Your task to perform on an android device: Do I have any events tomorrow? Image 0: 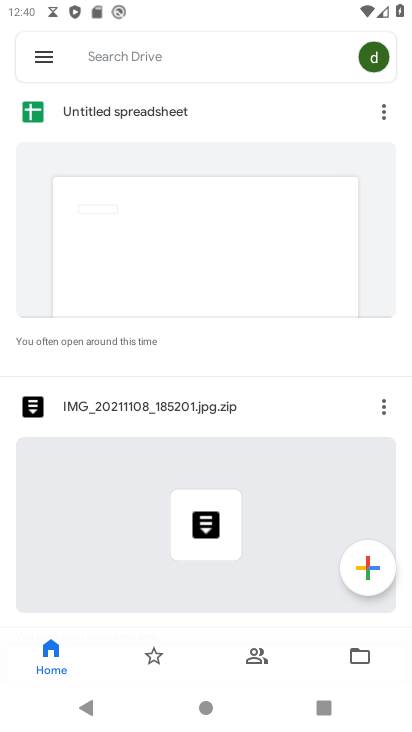
Step 0: press home button
Your task to perform on an android device: Do I have any events tomorrow? Image 1: 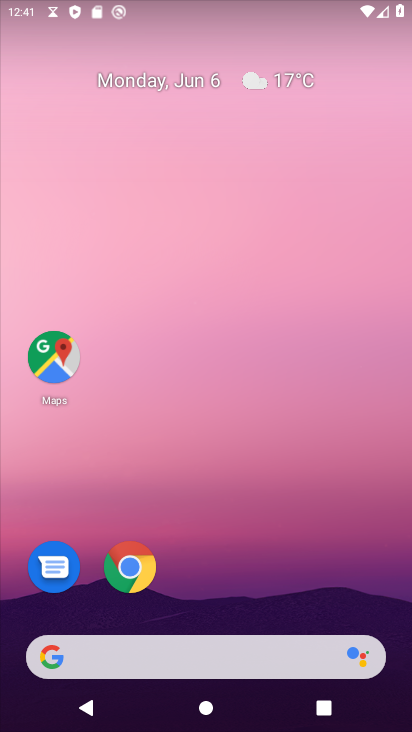
Step 1: drag from (231, 688) to (230, 4)
Your task to perform on an android device: Do I have any events tomorrow? Image 2: 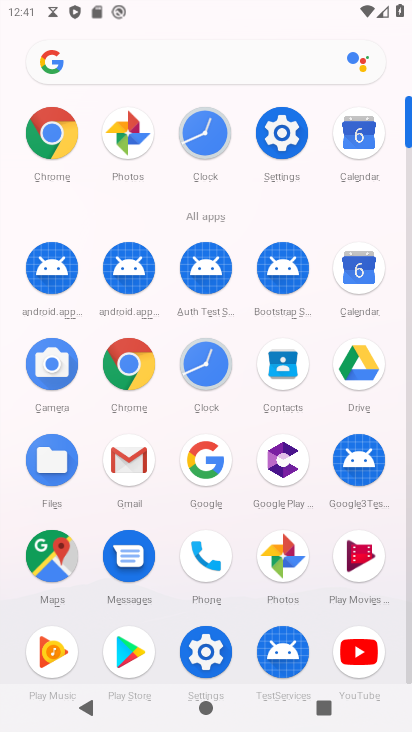
Step 2: click (353, 135)
Your task to perform on an android device: Do I have any events tomorrow? Image 3: 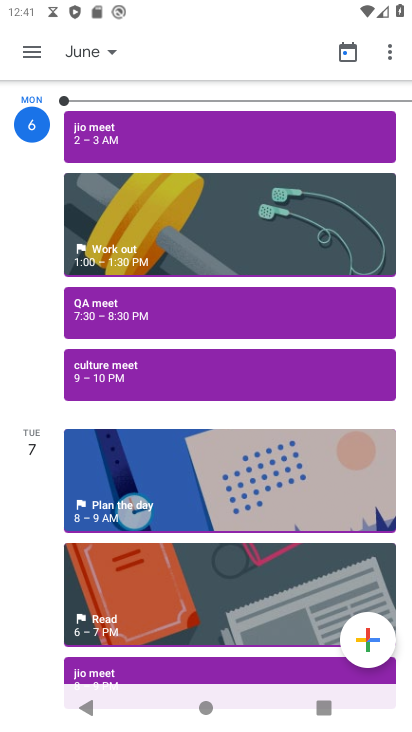
Step 3: click (99, 54)
Your task to perform on an android device: Do I have any events tomorrow? Image 4: 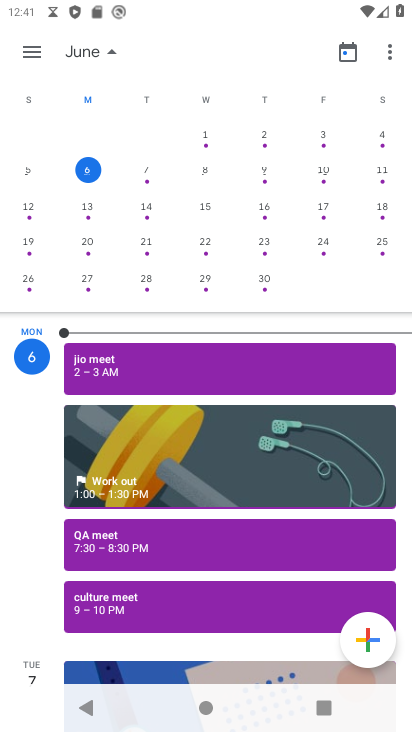
Step 4: click (148, 169)
Your task to perform on an android device: Do I have any events tomorrow? Image 5: 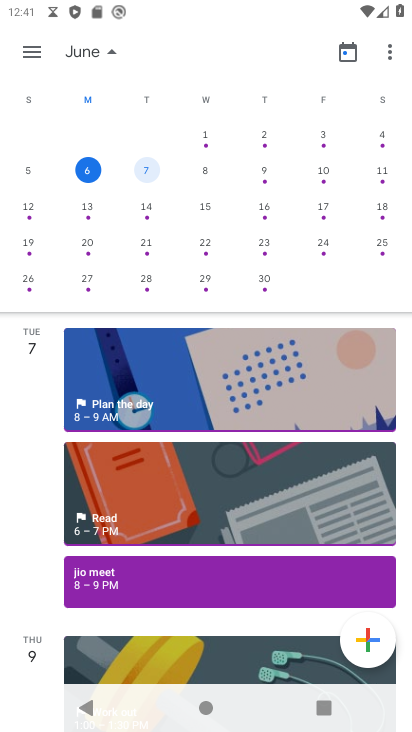
Step 5: click (36, 50)
Your task to perform on an android device: Do I have any events tomorrow? Image 6: 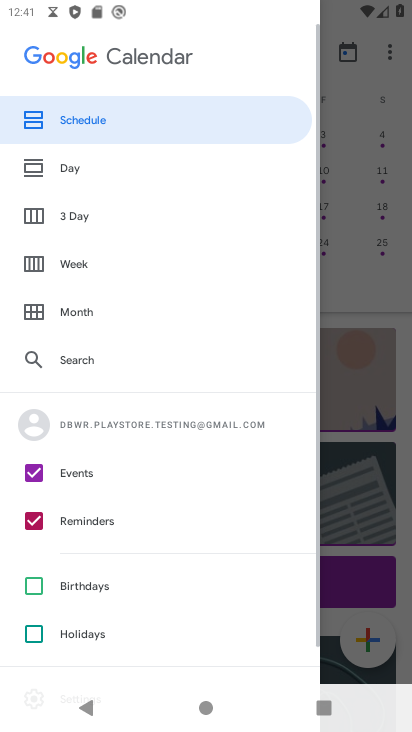
Step 6: click (30, 521)
Your task to perform on an android device: Do I have any events tomorrow? Image 7: 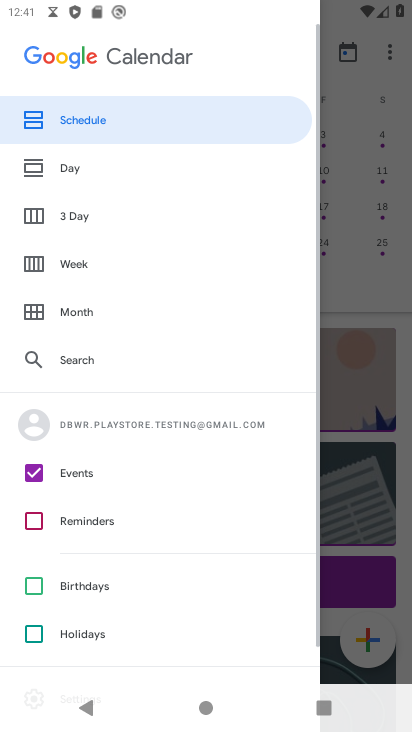
Step 7: click (90, 113)
Your task to perform on an android device: Do I have any events tomorrow? Image 8: 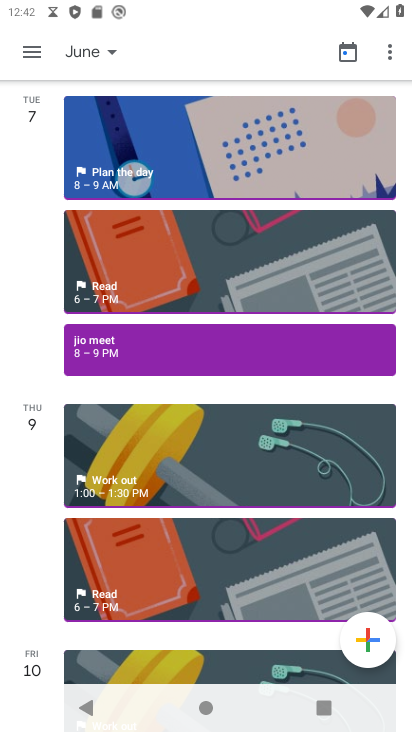
Step 8: task complete